Your task to perform on an android device: open wifi settings Image 0: 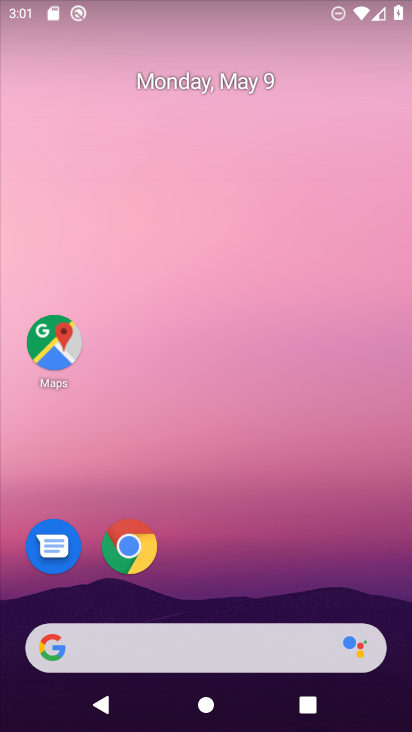
Step 0: drag from (167, 489) to (216, 153)
Your task to perform on an android device: open wifi settings Image 1: 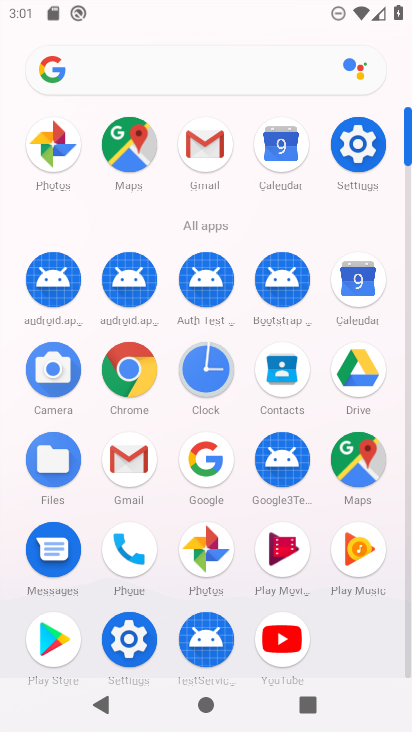
Step 1: click (350, 166)
Your task to perform on an android device: open wifi settings Image 2: 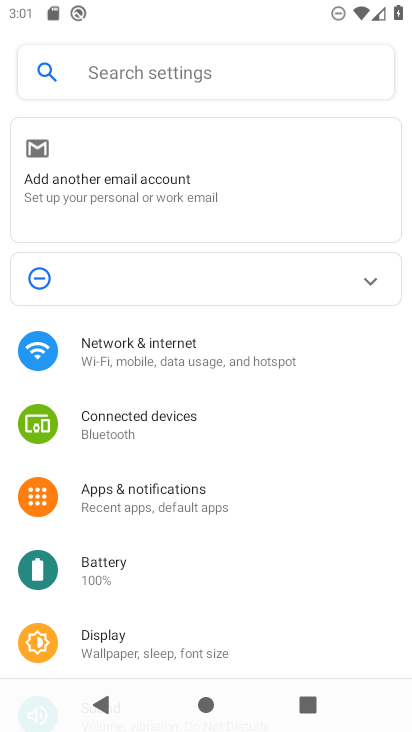
Step 2: click (129, 353)
Your task to perform on an android device: open wifi settings Image 3: 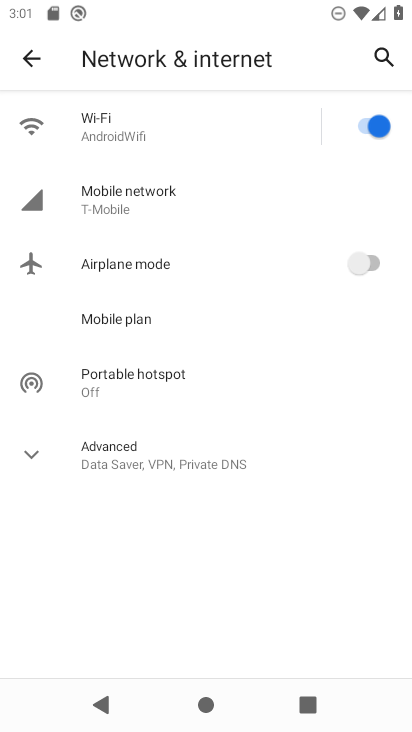
Step 3: click (197, 126)
Your task to perform on an android device: open wifi settings Image 4: 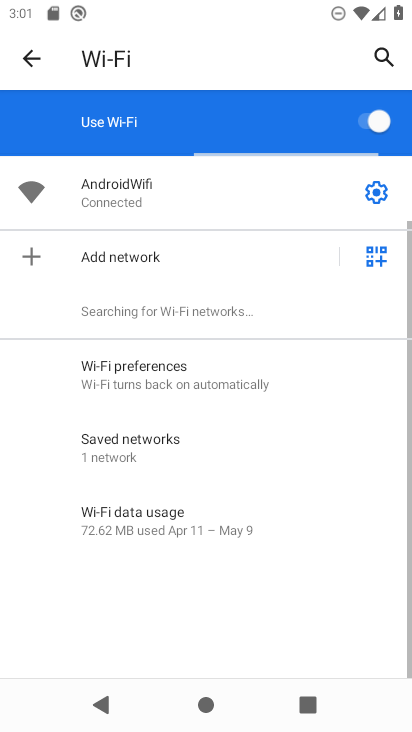
Step 4: task complete